Your task to perform on an android device: Open calendar and show me the first week of next month Image 0: 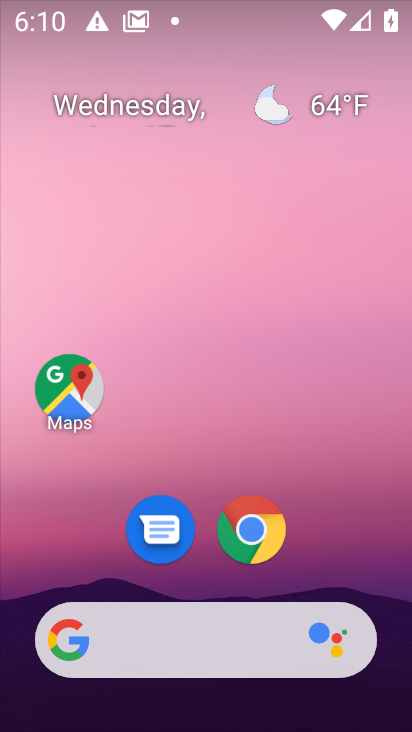
Step 0: drag from (205, 244) to (206, 124)
Your task to perform on an android device: Open calendar and show me the first week of next month Image 1: 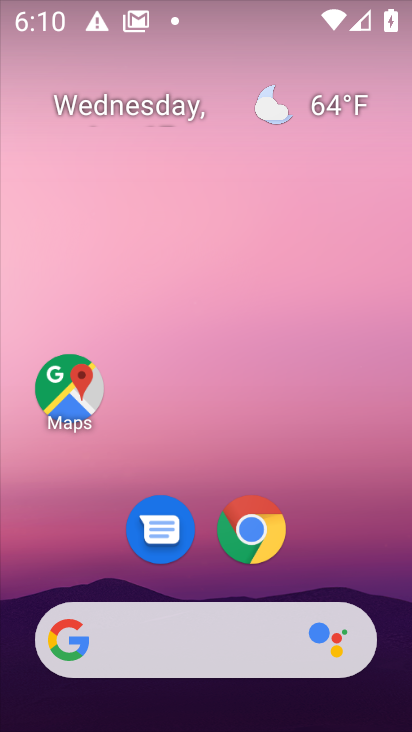
Step 1: drag from (197, 557) to (262, 17)
Your task to perform on an android device: Open calendar and show me the first week of next month Image 2: 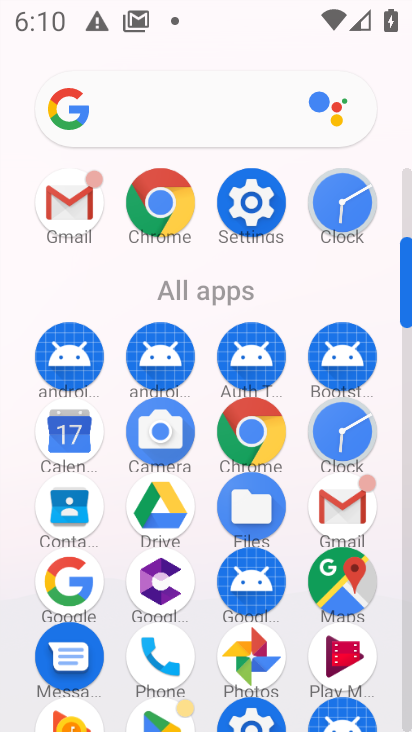
Step 2: click (66, 428)
Your task to perform on an android device: Open calendar and show me the first week of next month Image 3: 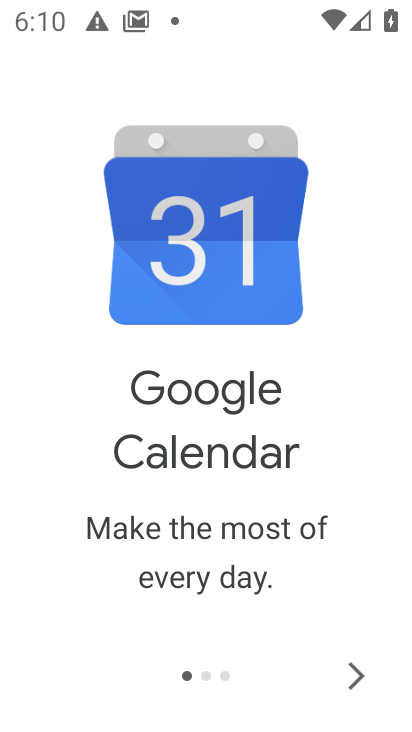
Step 3: click (346, 679)
Your task to perform on an android device: Open calendar and show me the first week of next month Image 4: 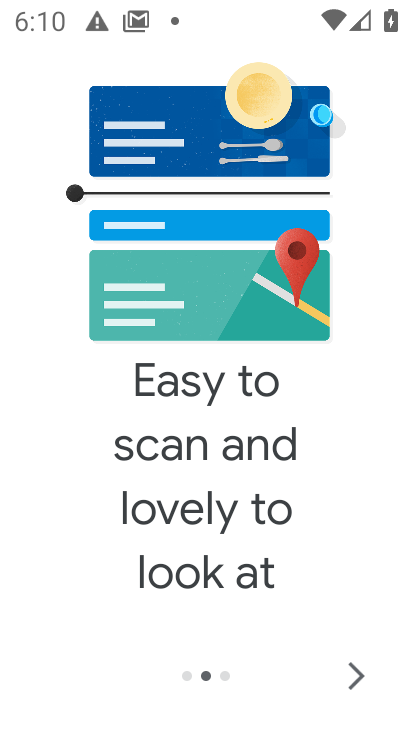
Step 4: click (353, 679)
Your task to perform on an android device: Open calendar and show me the first week of next month Image 5: 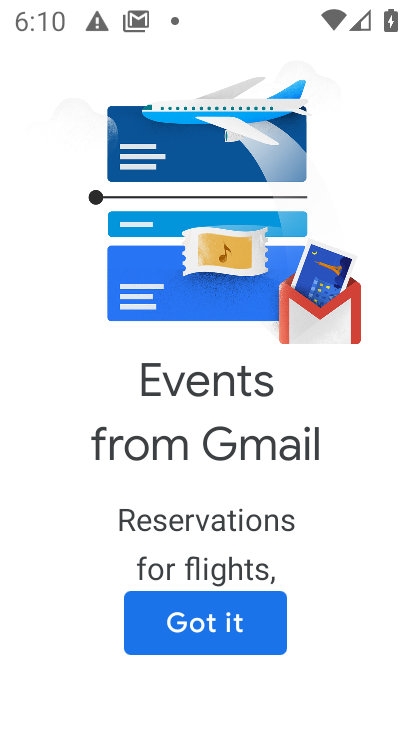
Step 5: click (197, 616)
Your task to perform on an android device: Open calendar and show me the first week of next month Image 6: 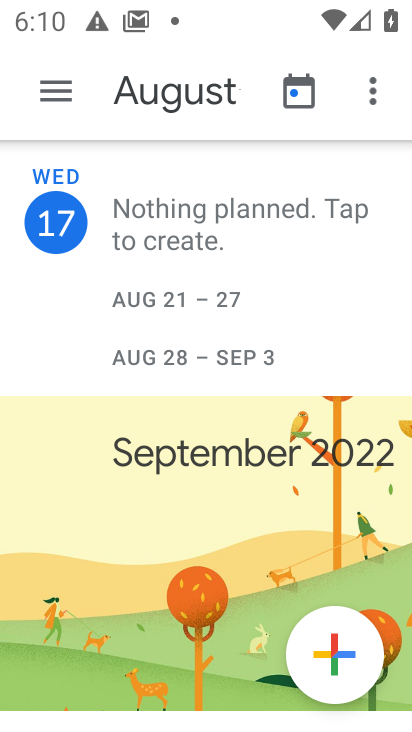
Step 6: click (60, 94)
Your task to perform on an android device: Open calendar and show me the first week of next month Image 7: 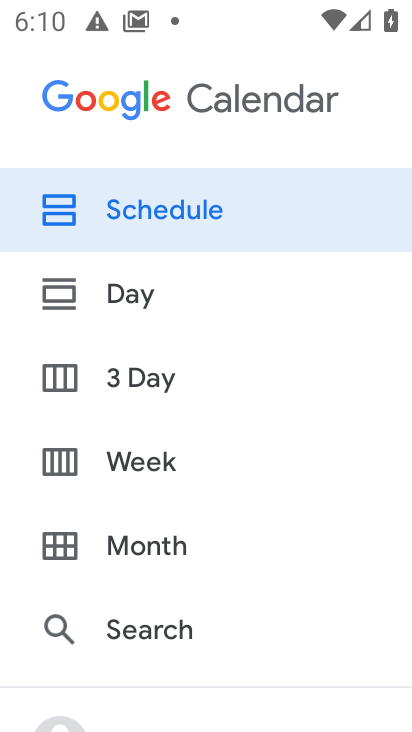
Step 7: click (143, 458)
Your task to perform on an android device: Open calendar and show me the first week of next month Image 8: 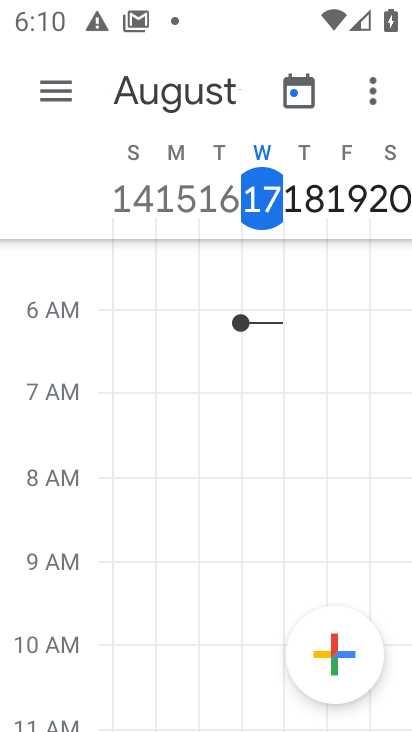
Step 8: click (176, 100)
Your task to perform on an android device: Open calendar and show me the first week of next month Image 9: 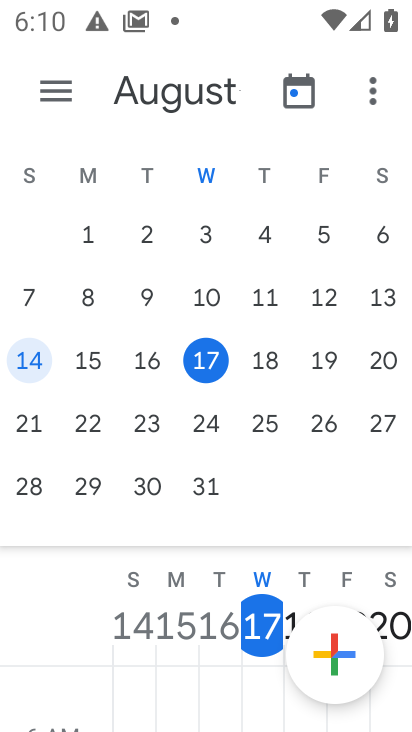
Step 9: click (176, 100)
Your task to perform on an android device: Open calendar and show me the first week of next month Image 10: 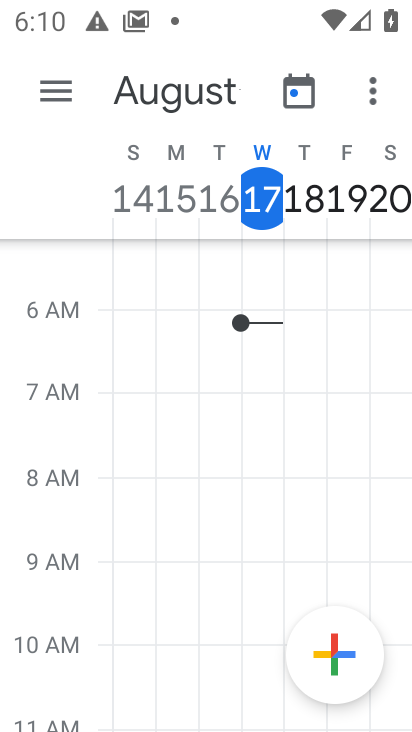
Step 10: click (176, 100)
Your task to perform on an android device: Open calendar and show me the first week of next month Image 11: 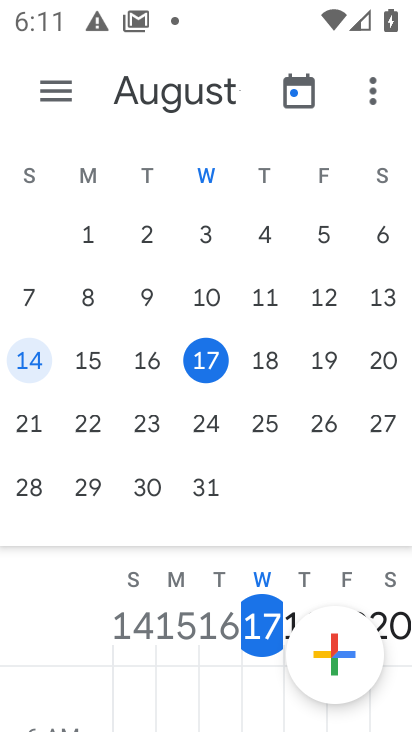
Step 11: drag from (350, 289) to (0, 394)
Your task to perform on an android device: Open calendar and show me the first week of next month Image 12: 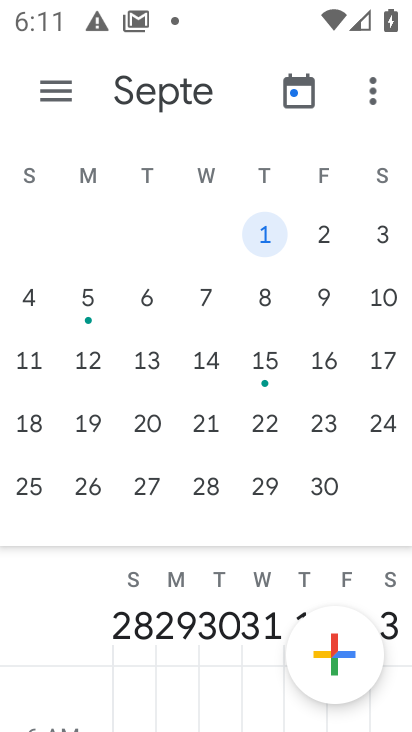
Step 12: click (262, 223)
Your task to perform on an android device: Open calendar and show me the first week of next month Image 13: 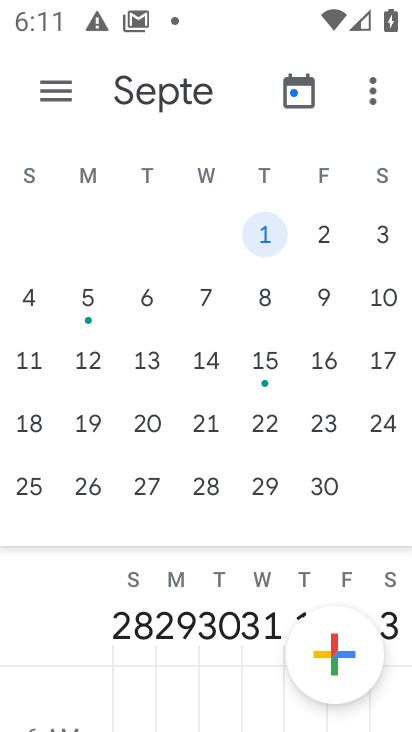
Step 13: task complete